Your task to perform on an android device: Open accessibility settings Image 0: 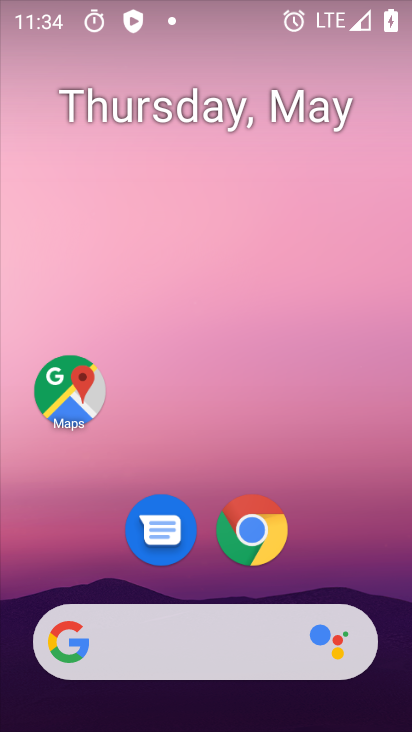
Step 0: drag from (361, 411) to (407, 74)
Your task to perform on an android device: Open accessibility settings Image 1: 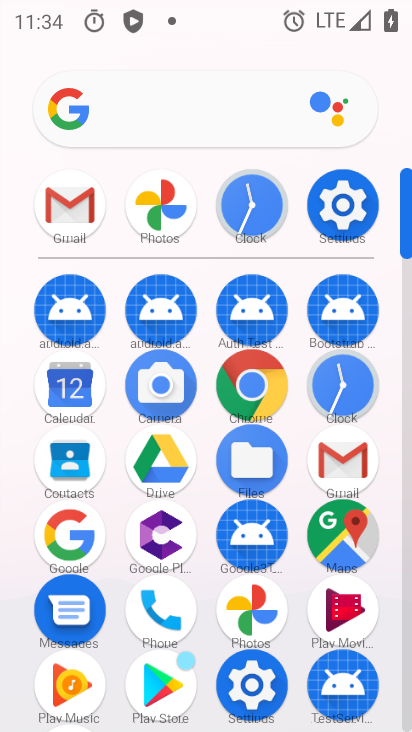
Step 1: click (343, 194)
Your task to perform on an android device: Open accessibility settings Image 2: 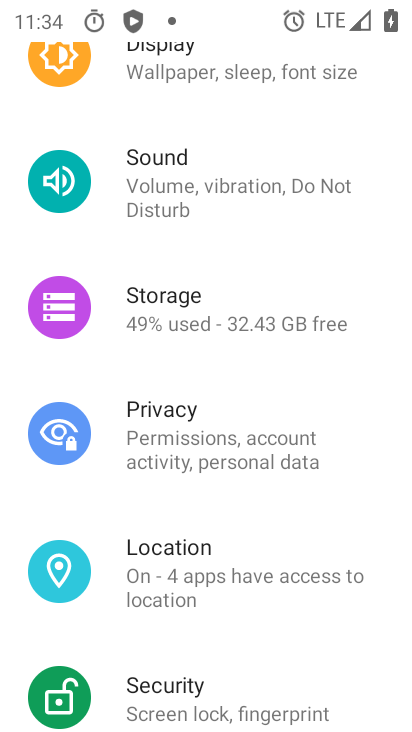
Step 2: drag from (182, 613) to (172, 481)
Your task to perform on an android device: Open accessibility settings Image 3: 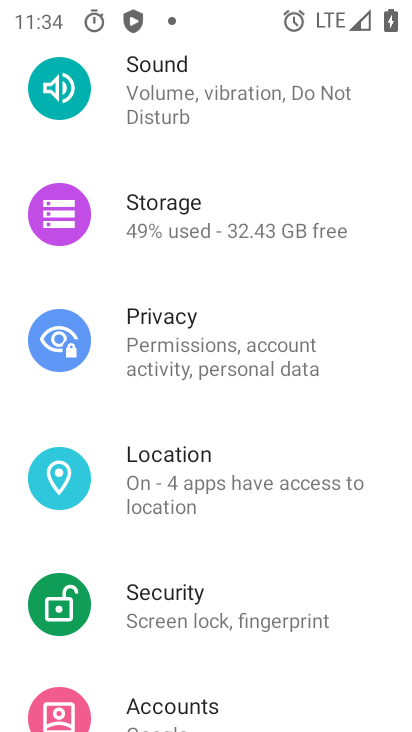
Step 3: drag from (197, 652) to (192, 516)
Your task to perform on an android device: Open accessibility settings Image 4: 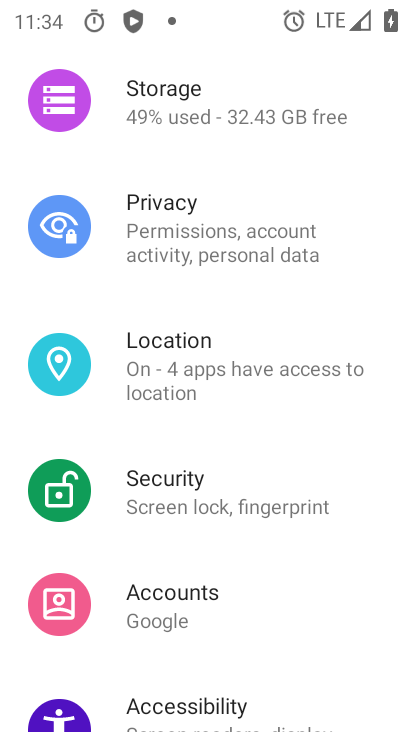
Step 4: drag from (211, 639) to (227, 513)
Your task to perform on an android device: Open accessibility settings Image 5: 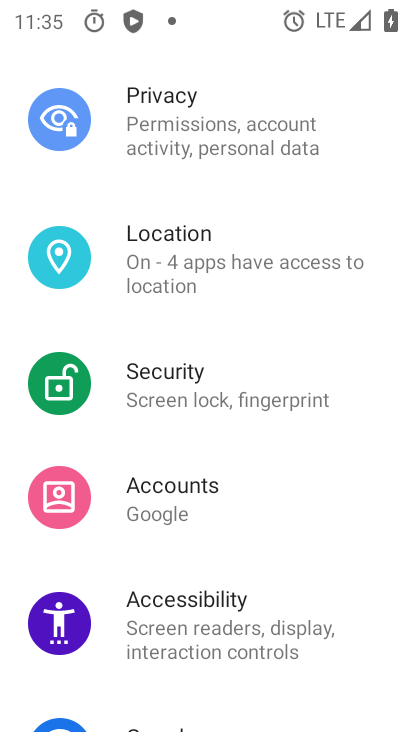
Step 5: click (232, 628)
Your task to perform on an android device: Open accessibility settings Image 6: 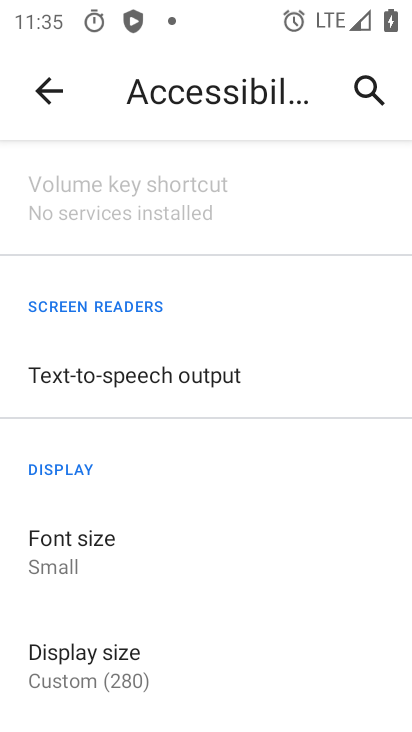
Step 6: task complete